Your task to perform on an android device: Open calendar and show me the third week of next month Image 0: 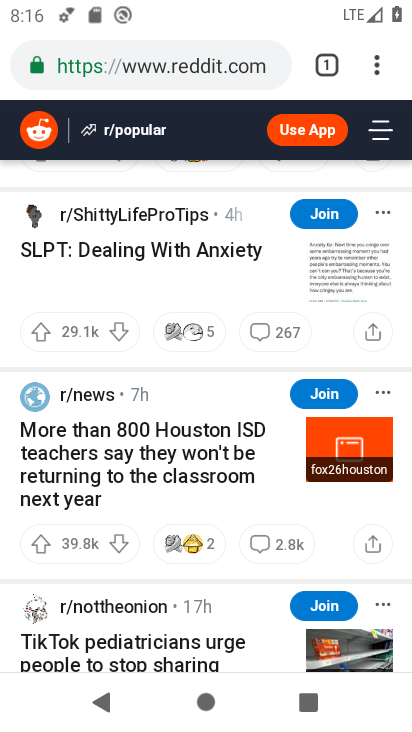
Step 0: press home button
Your task to perform on an android device: Open calendar and show me the third week of next month Image 1: 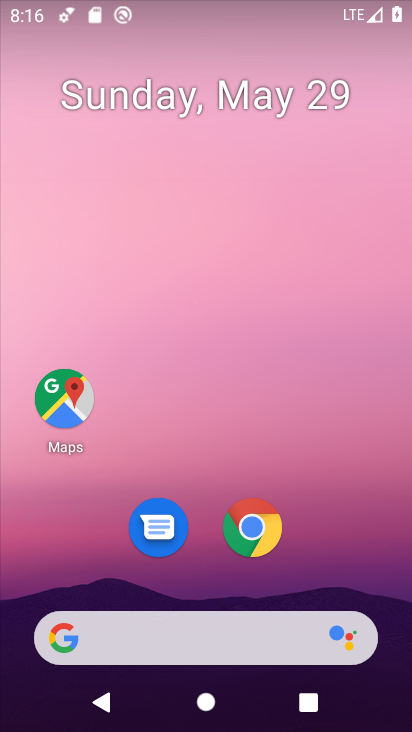
Step 1: drag from (211, 572) to (244, 3)
Your task to perform on an android device: Open calendar and show me the third week of next month Image 2: 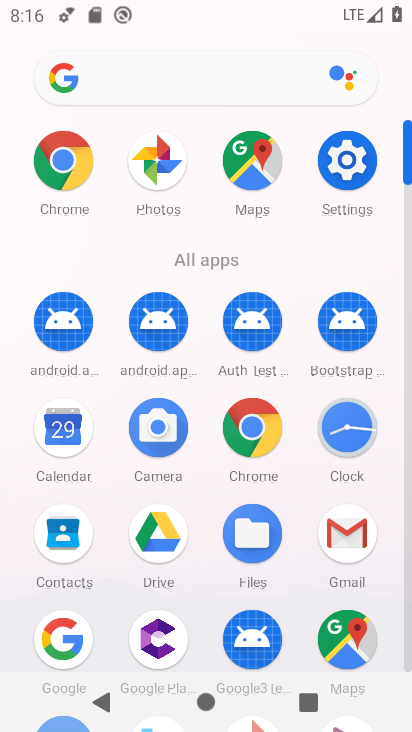
Step 2: click (61, 429)
Your task to perform on an android device: Open calendar and show me the third week of next month Image 3: 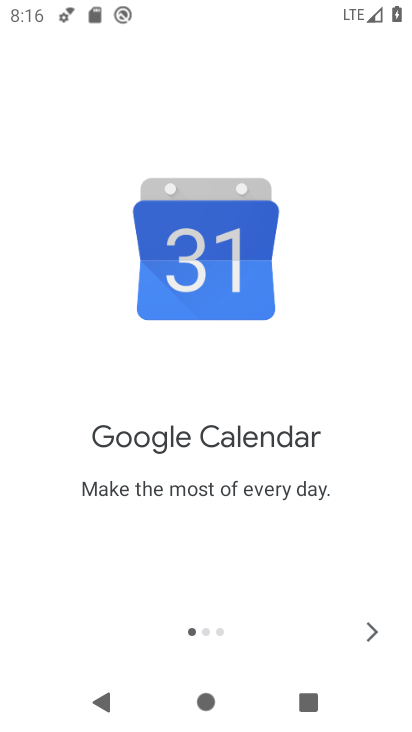
Step 3: click (358, 629)
Your task to perform on an android device: Open calendar and show me the third week of next month Image 4: 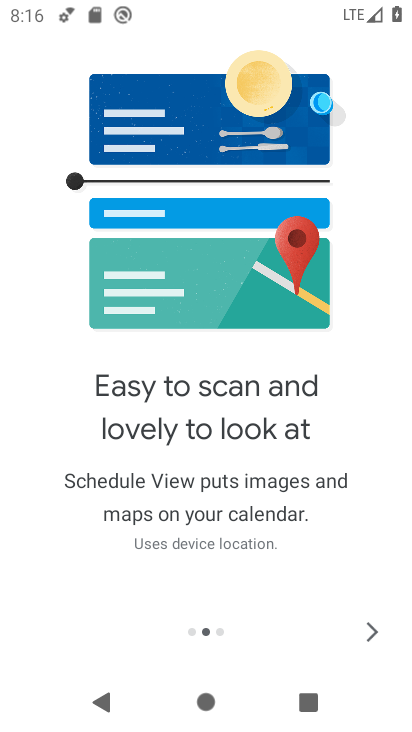
Step 4: click (370, 627)
Your task to perform on an android device: Open calendar and show me the third week of next month Image 5: 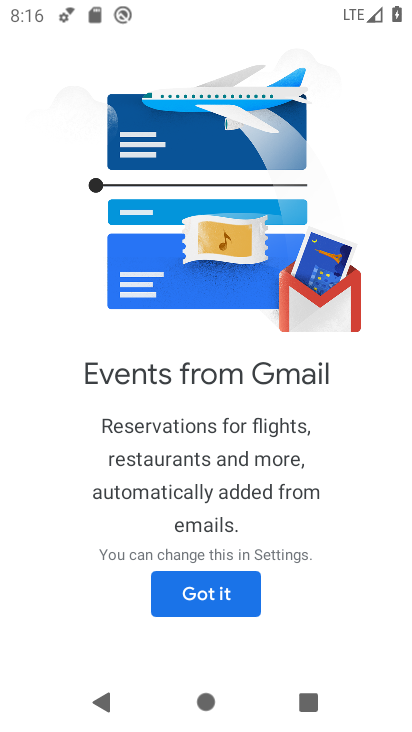
Step 5: click (211, 594)
Your task to perform on an android device: Open calendar and show me the third week of next month Image 6: 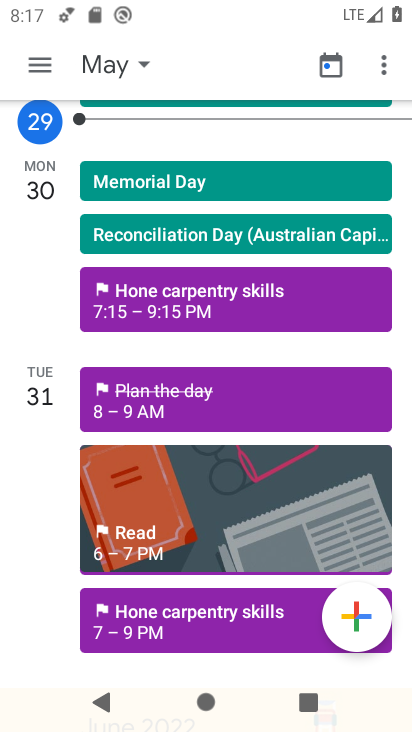
Step 6: click (40, 56)
Your task to perform on an android device: Open calendar and show me the third week of next month Image 7: 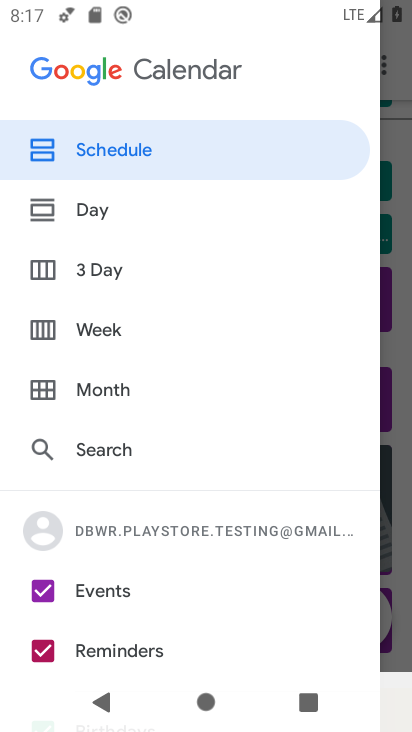
Step 7: click (68, 325)
Your task to perform on an android device: Open calendar and show me the third week of next month Image 8: 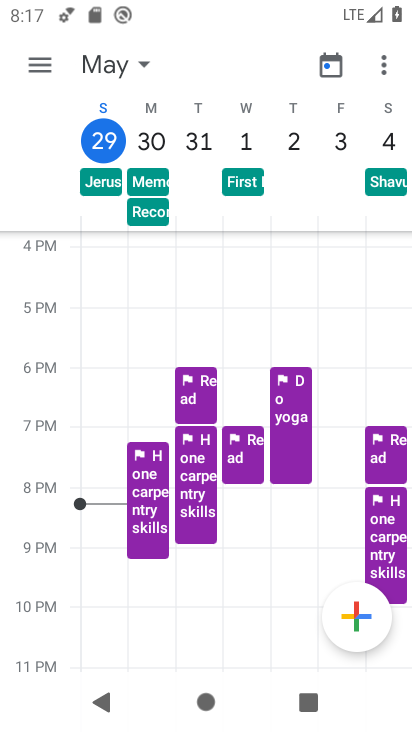
Step 8: drag from (376, 140) to (15, 157)
Your task to perform on an android device: Open calendar and show me the third week of next month Image 9: 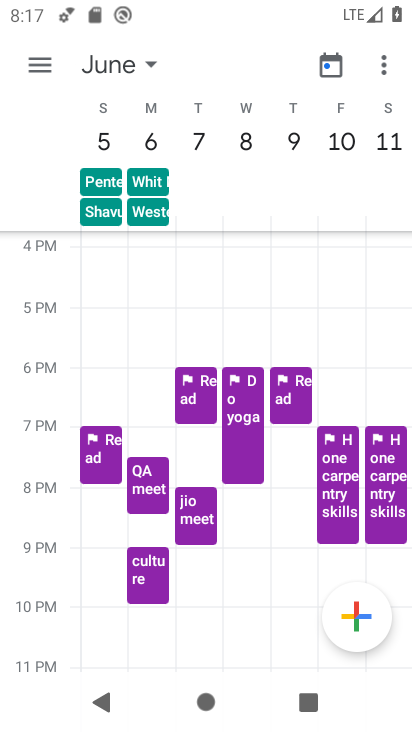
Step 9: drag from (377, 133) to (7, 161)
Your task to perform on an android device: Open calendar and show me the third week of next month Image 10: 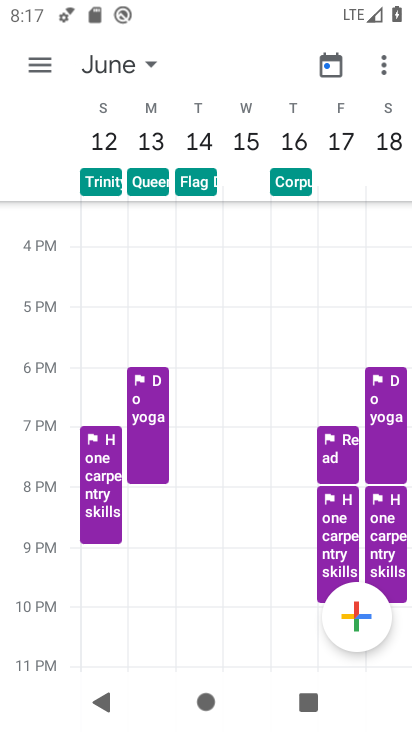
Step 10: click (101, 134)
Your task to perform on an android device: Open calendar and show me the third week of next month Image 11: 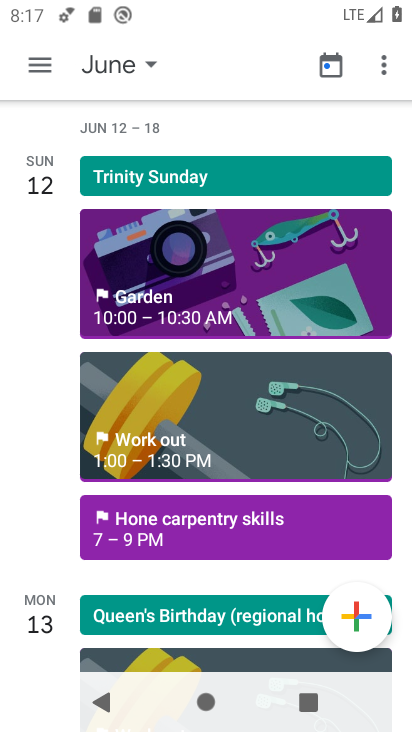
Step 11: task complete